Your task to perform on an android device: turn off translation in the chrome app Image 0: 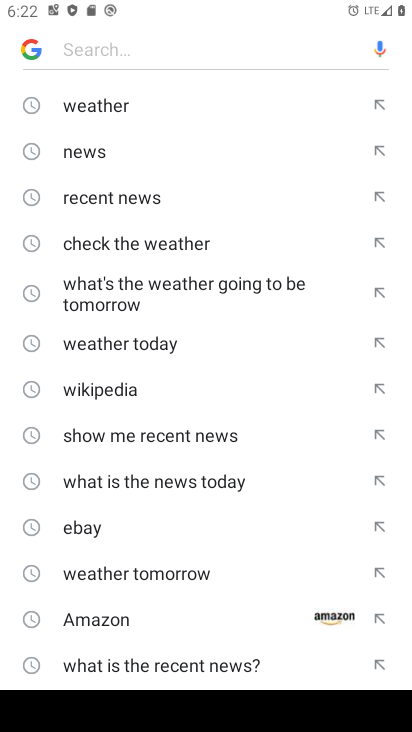
Step 0: press home button
Your task to perform on an android device: turn off translation in the chrome app Image 1: 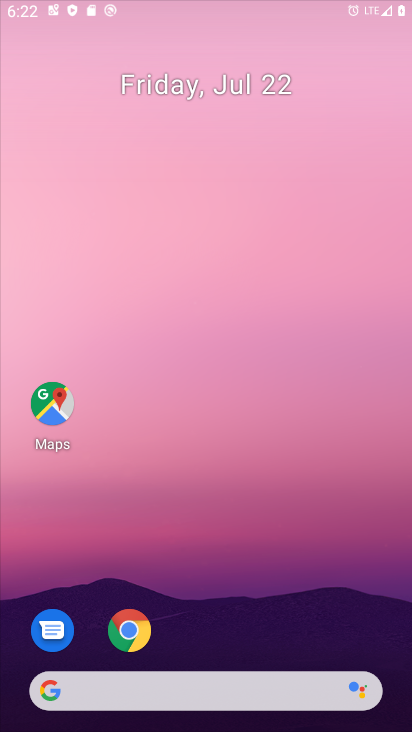
Step 1: drag from (274, 699) to (281, 29)
Your task to perform on an android device: turn off translation in the chrome app Image 2: 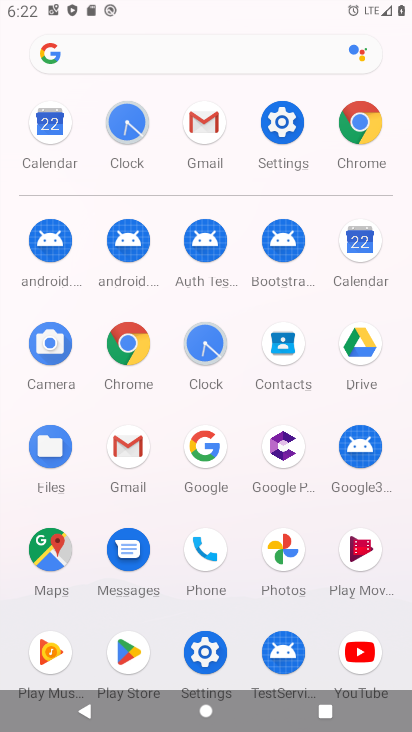
Step 2: click (121, 337)
Your task to perform on an android device: turn off translation in the chrome app Image 3: 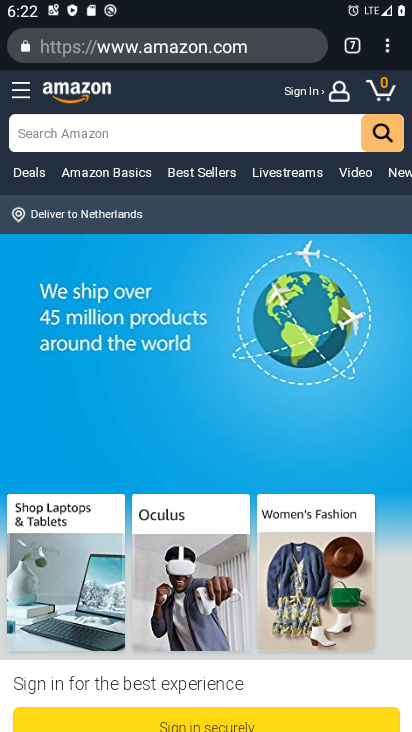
Step 3: drag from (390, 39) to (238, 544)
Your task to perform on an android device: turn off translation in the chrome app Image 4: 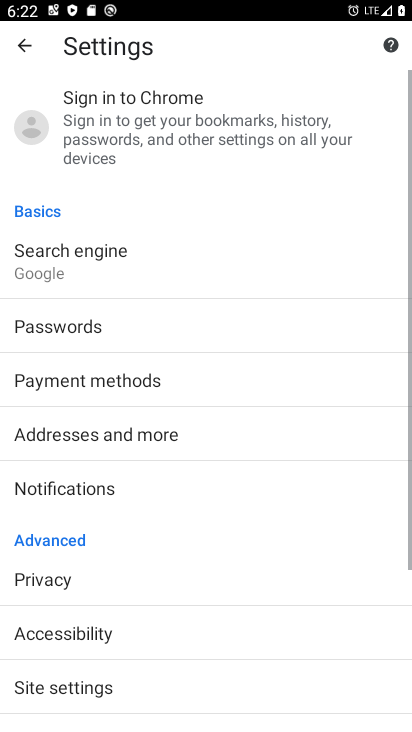
Step 4: drag from (198, 652) to (172, 426)
Your task to perform on an android device: turn off translation in the chrome app Image 5: 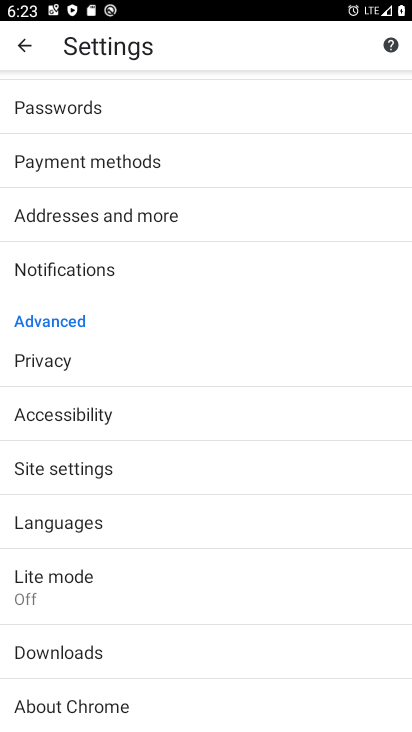
Step 5: click (141, 508)
Your task to perform on an android device: turn off translation in the chrome app Image 6: 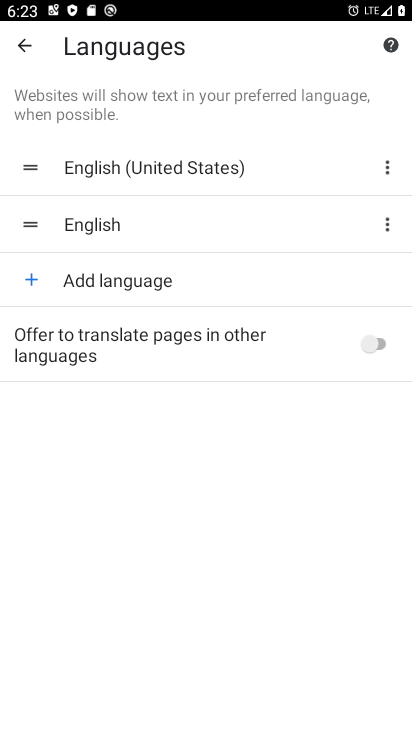
Step 6: task complete